Your task to perform on an android device: check out phone information Image 0: 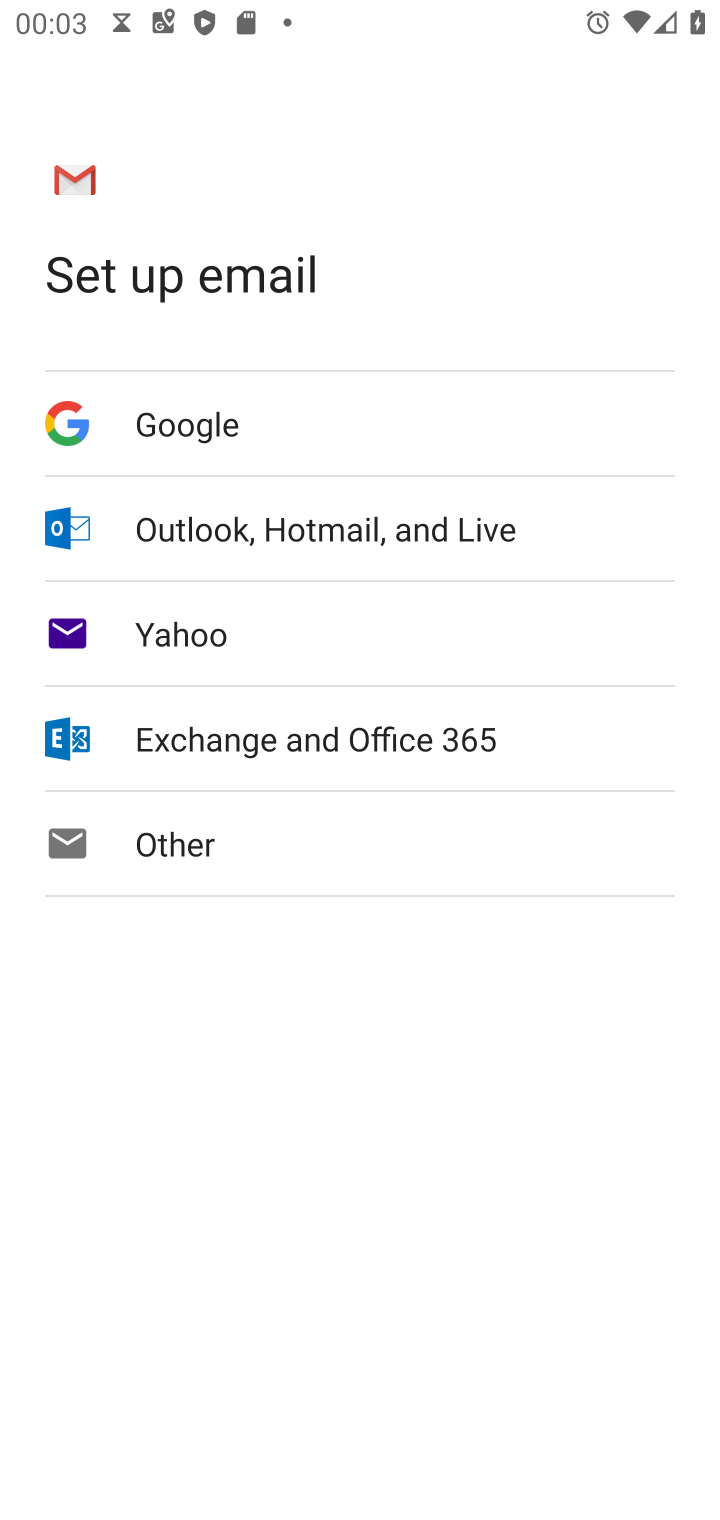
Step 0: press home button
Your task to perform on an android device: check out phone information Image 1: 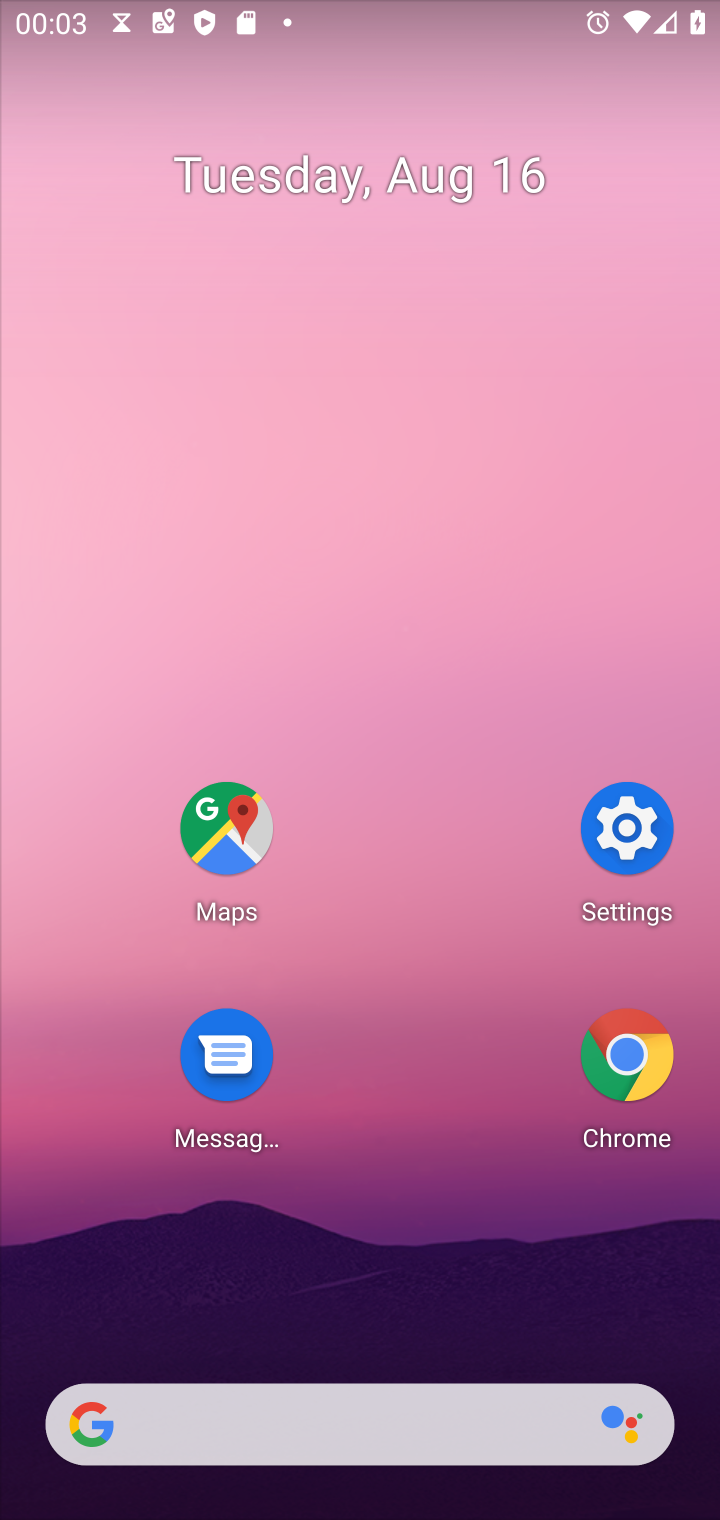
Step 1: click (626, 830)
Your task to perform on an android device: check out phone information Image 2: 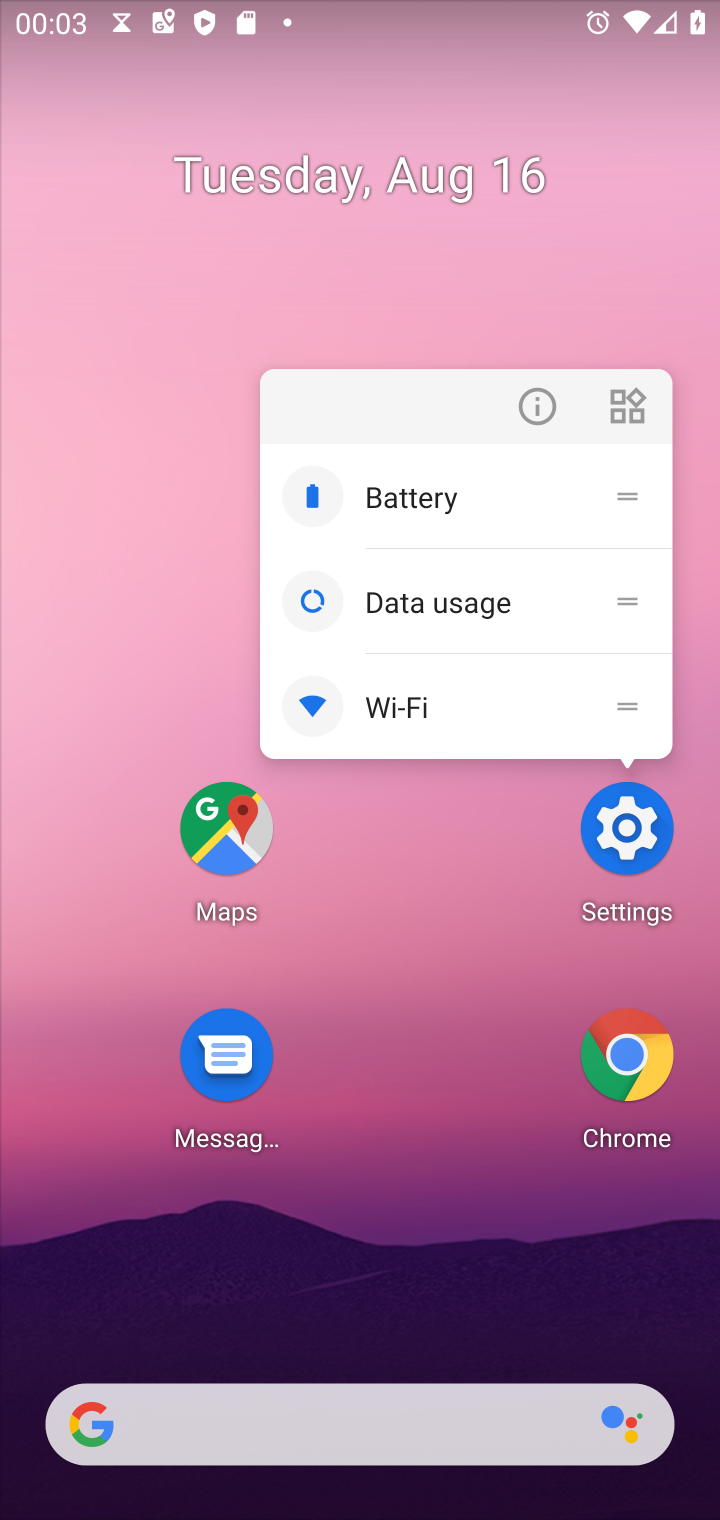
Step 2: click (626, 840)
Your task to perform on an android device: check out phone information Image 3: 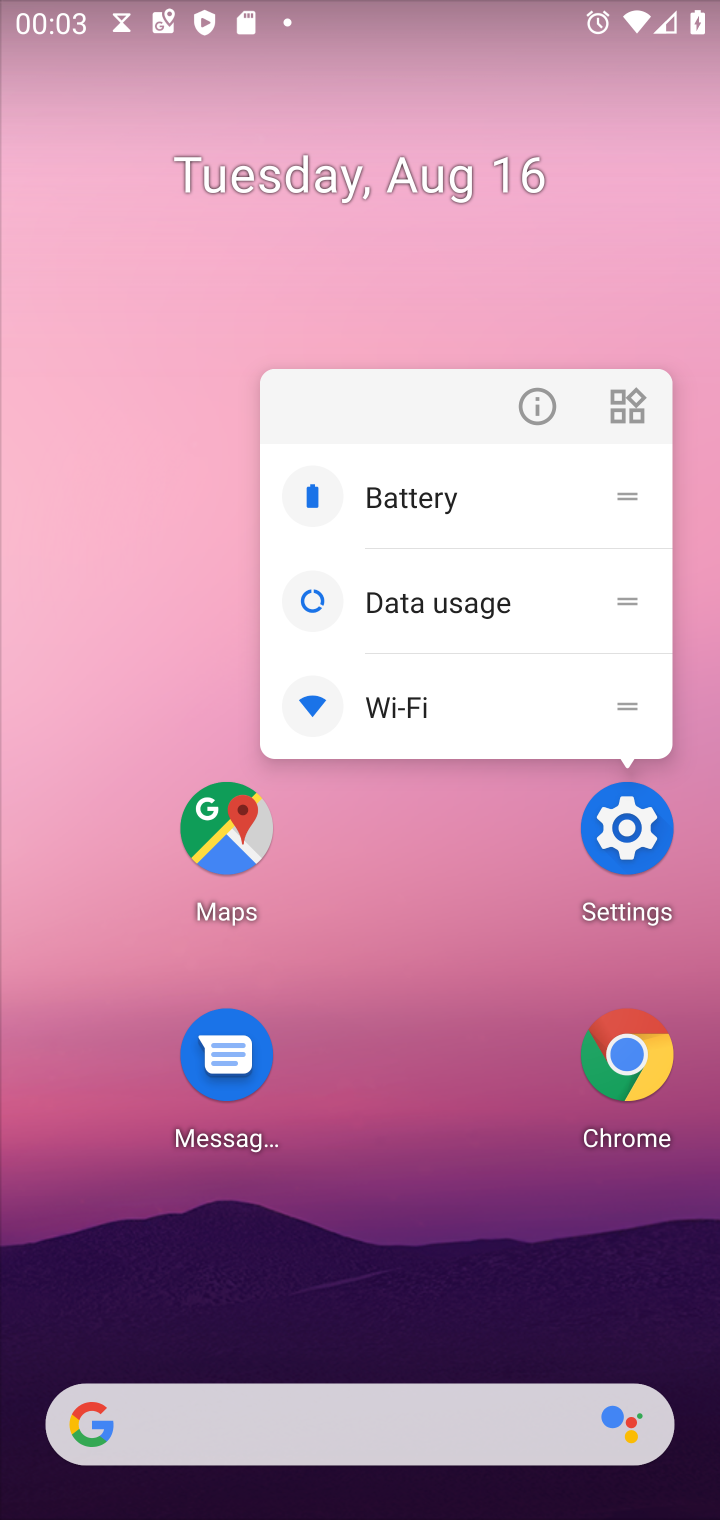
Step 3: click (626, 840)
Your task to perform on an android device: check out phone information Image 4: 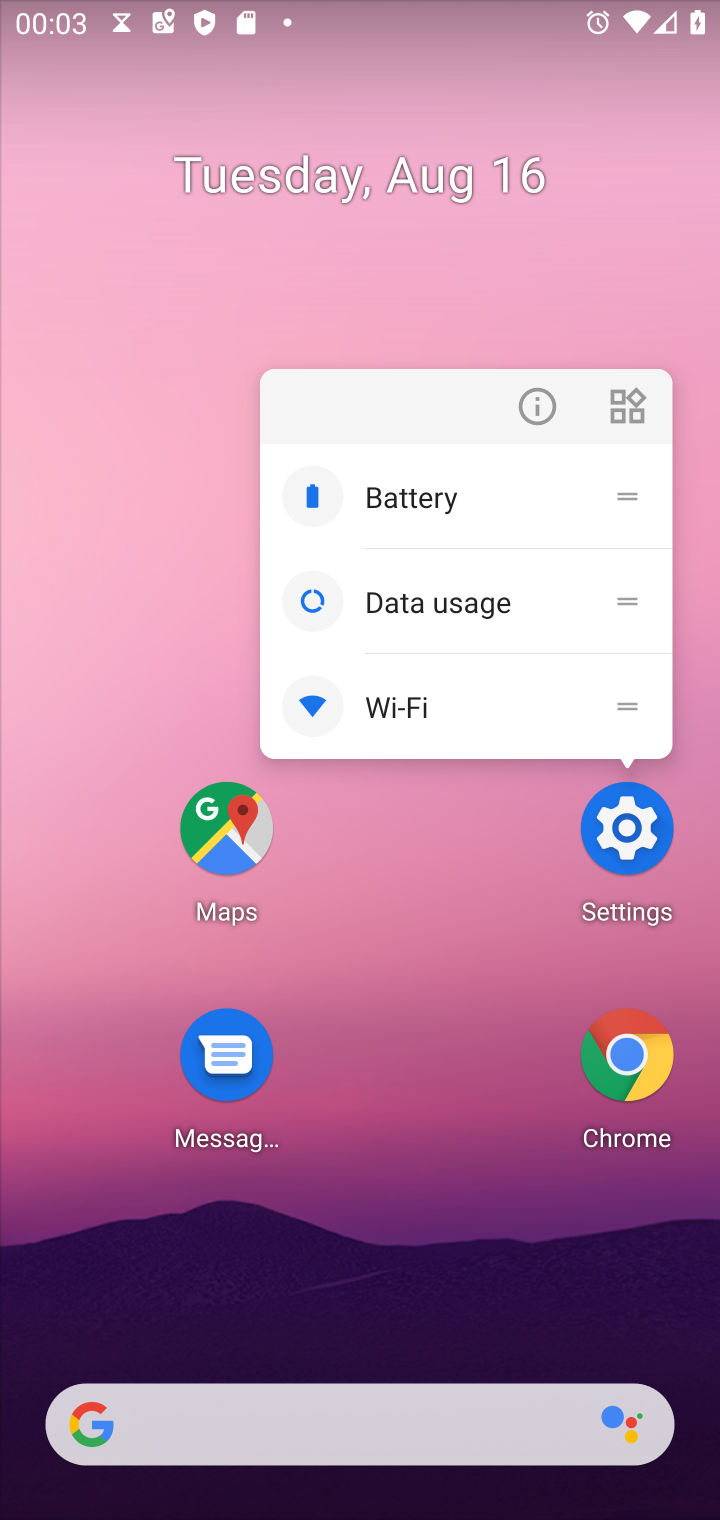
Step 4: click (626, 840)
Your task to perform on an android device: check out phone information Image 5: 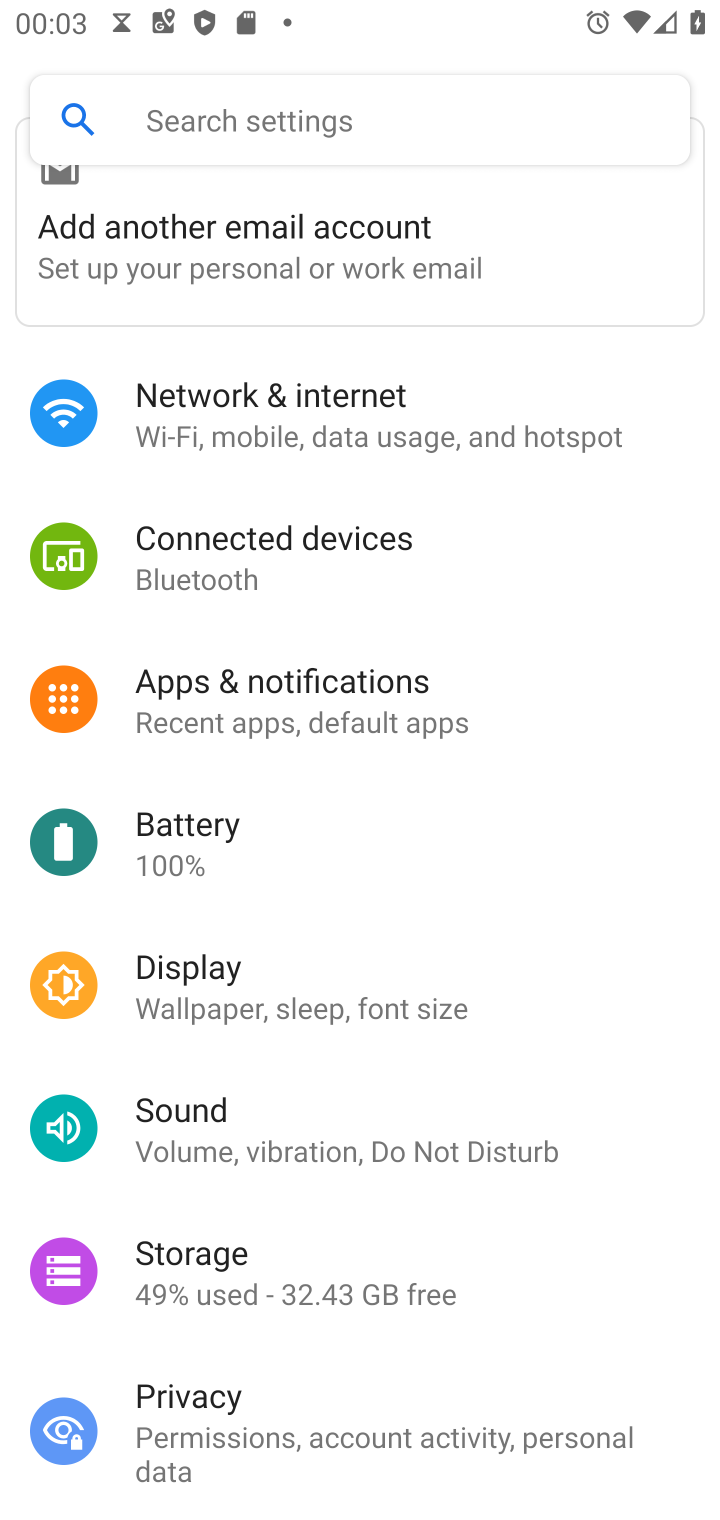
Step 5: drag from (386, 1330) to (637, 125)
Your task to perform on an android device: check out phone information Image 6: 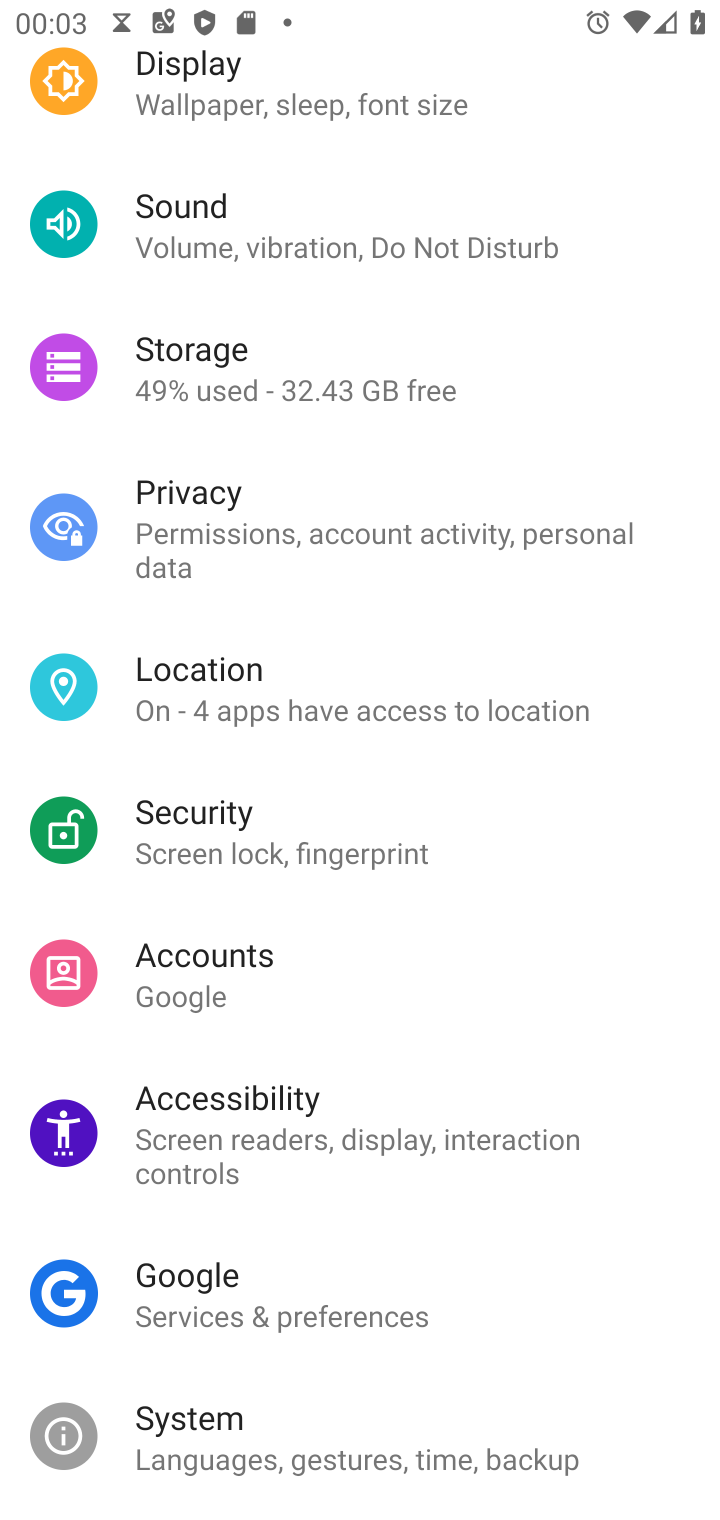
Step 6: drag from (334, 1348) to (712, 16)
Your task to perform on an android device: check out phone information Image 7: 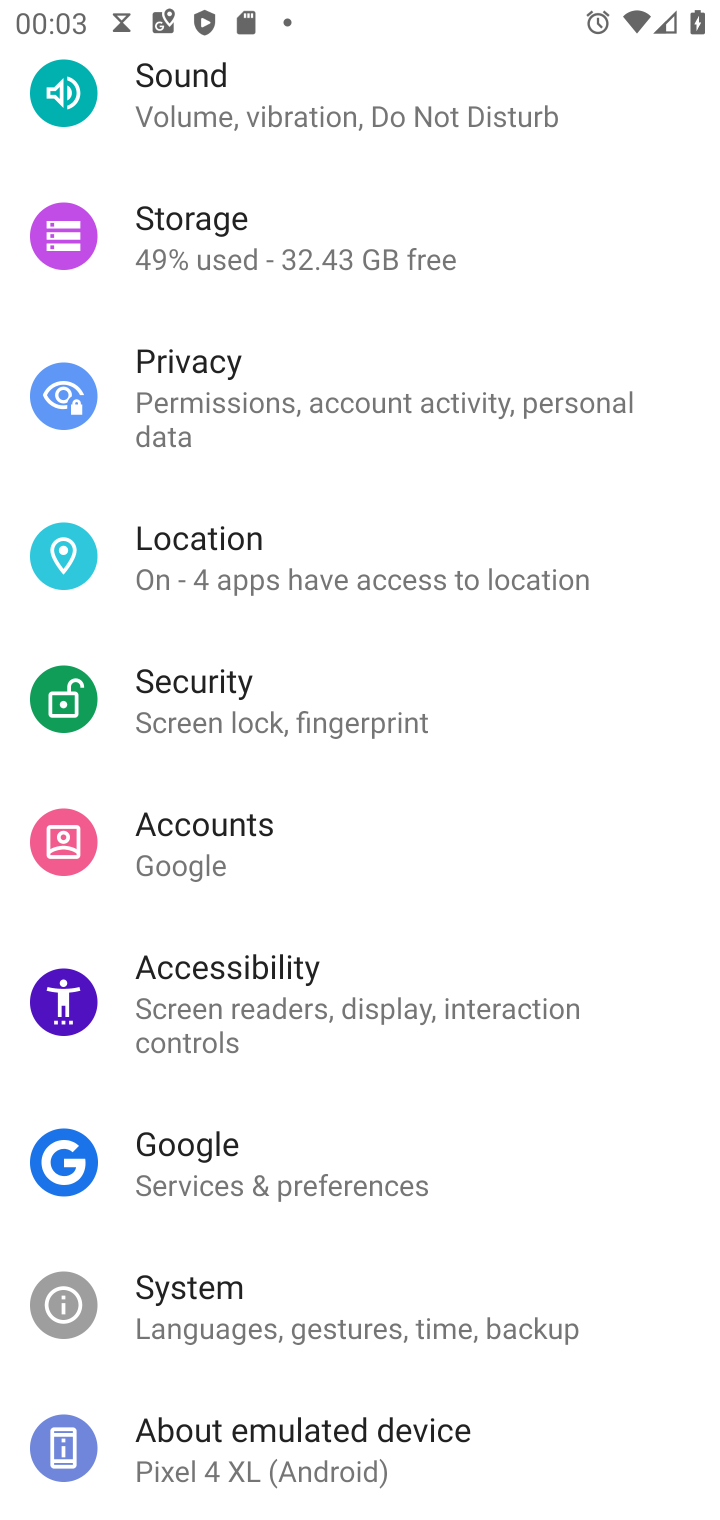
Step 7: click (295, 1432)
Your task to perform on an android device: check out phone information Image 8: 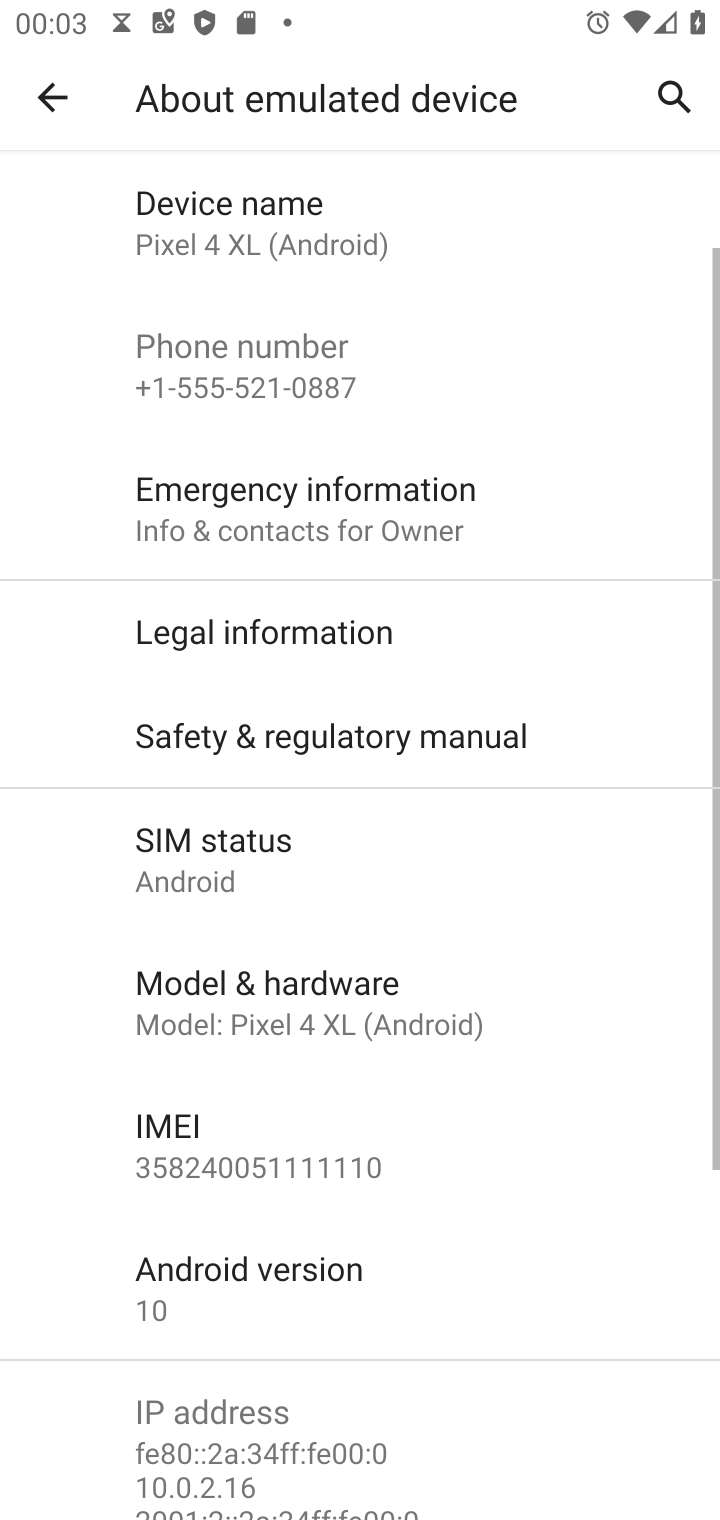
Step 8: task complete